Your task to perform on an android device: empty trash in the gmail app Image 0: 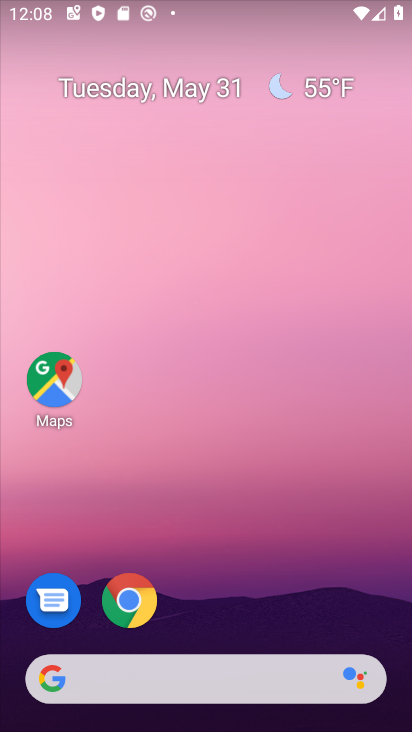
Step 0: drag from (281, 636) to (232, 192)
Your task to perform on an android device: empty trash in the gmail app Image 1: 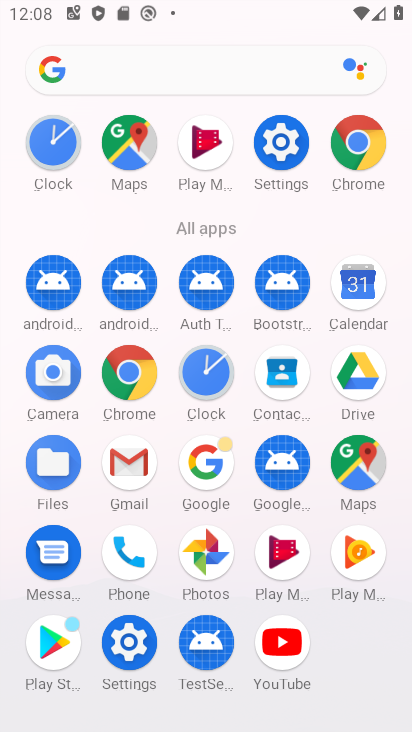
Step 1: click (127, 463)
Your task to perform on an android device: empty trash in the gmail app Image 2: 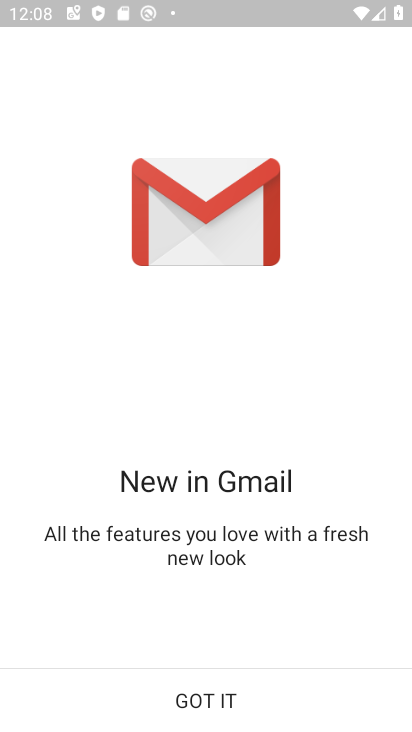
Step 2: click (197, 708)
Your task to perform on an android device: empty trash in the gmail app Image 3: 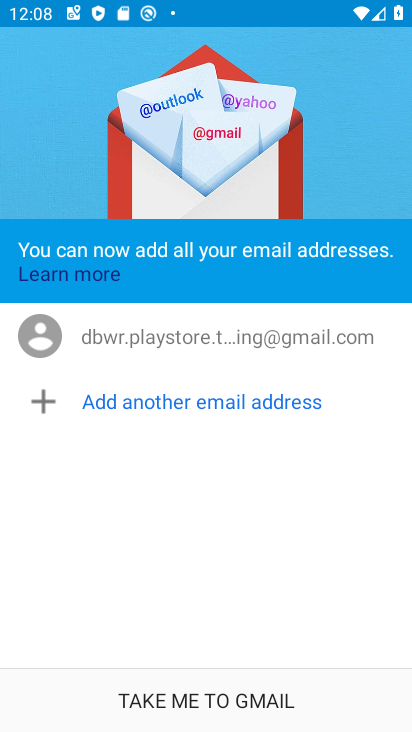
Step 3: click (197, 704)
Your task to perform on an android device: empty trash in the gmail app Image 4: 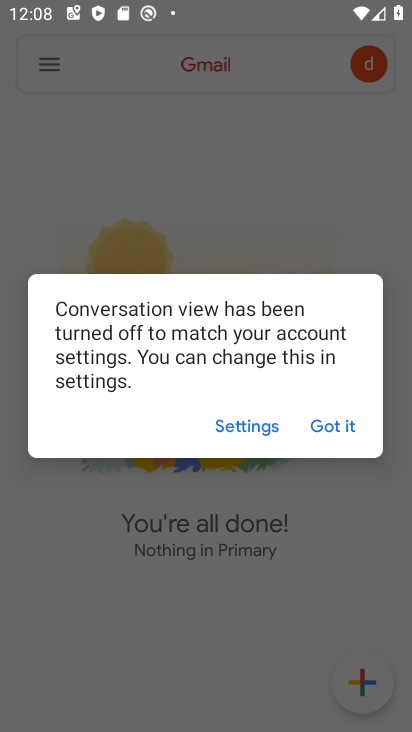
Step 4: click (320, 426)
Your task to perform on an android device: empty trash in the gmail app Image 5: 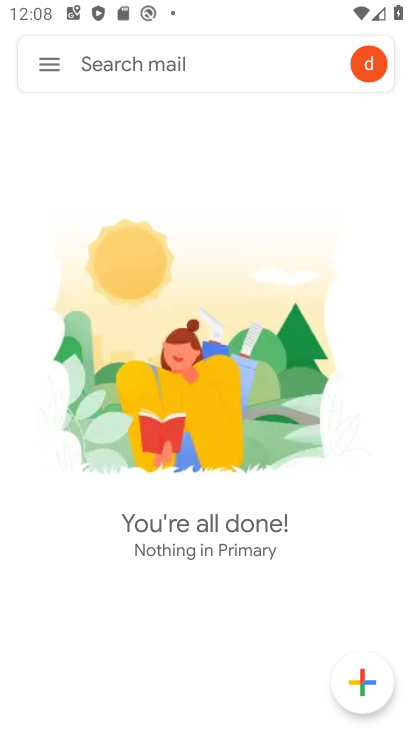
Step 5: click (53, 76)
Your task to perform on an android device: empty trash in the gmail app Image 6: 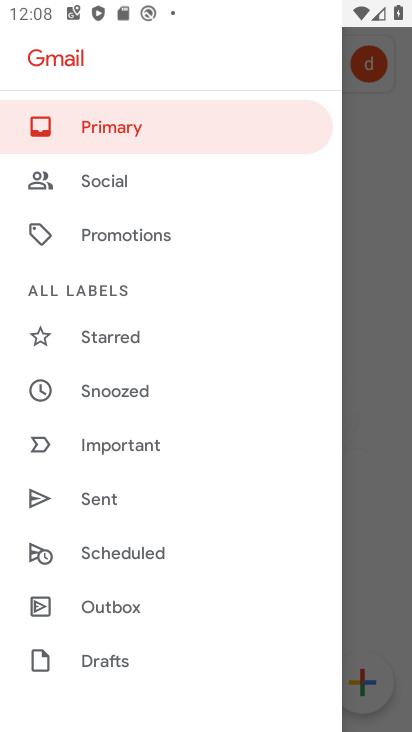
Step 6: drag from (291, 650) to (273, 341)
Your task to perform on an android device: empty trash in the gmail app Image 7: 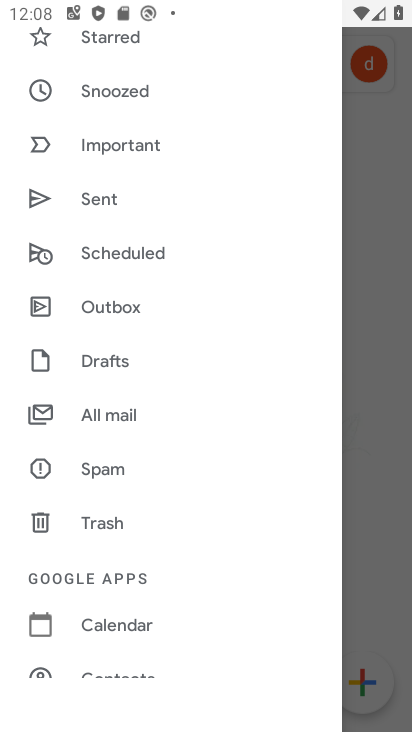
Step 7: click (109, 520)
Your task to perform on an android device: empty trash in the gmail app Image 8: 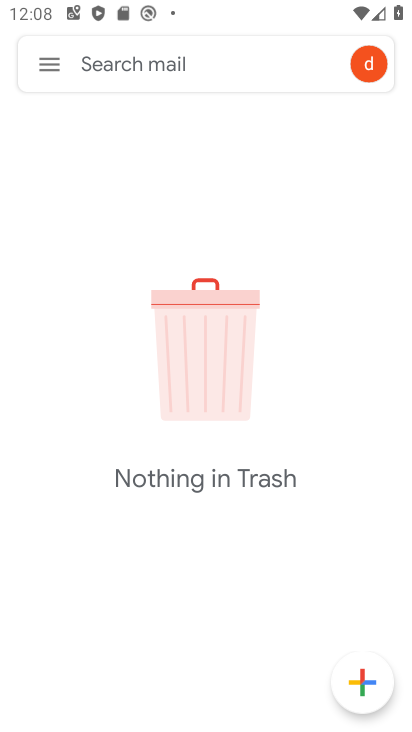
Step 8: task complete